Your task to perform on an android device: See recent photos Image 0: 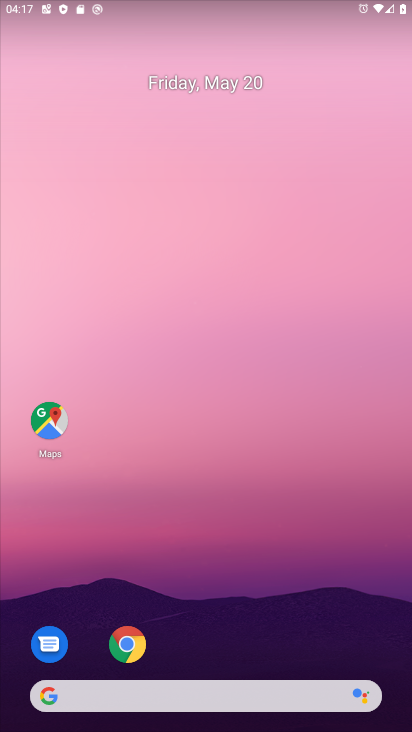
Step 0: drag from (308, 592) to (187, 25)
Your task to perform on an android device: See recent photos Image 1: 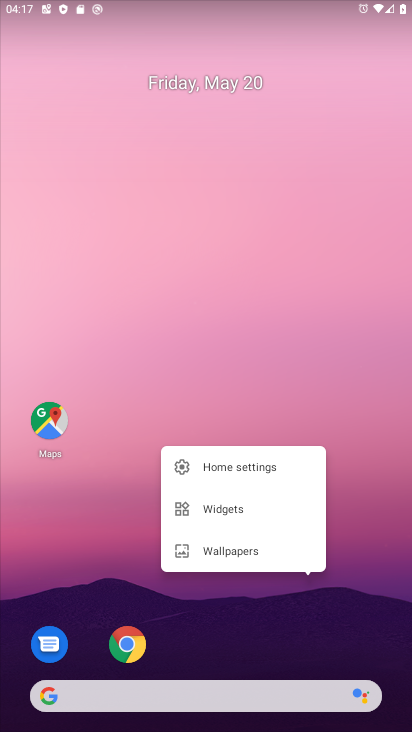
Step 1: click (259, 301)
Your task to perform on an android device: See recent photos Image 2: 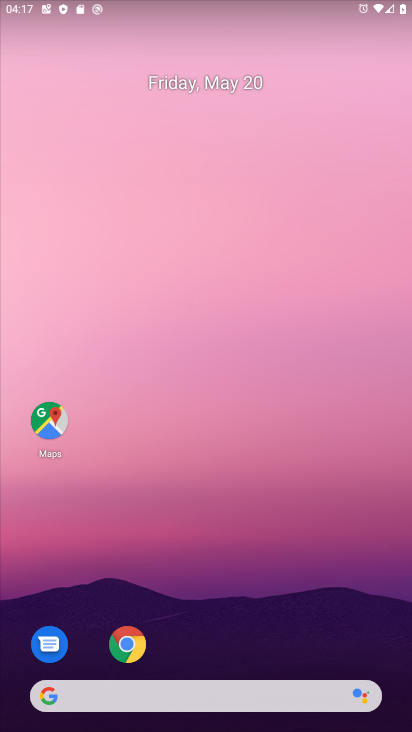
Step 2: drag from (293, 591) to (223, 158)
Your task to perform on an android device: See recent photos Image 3: 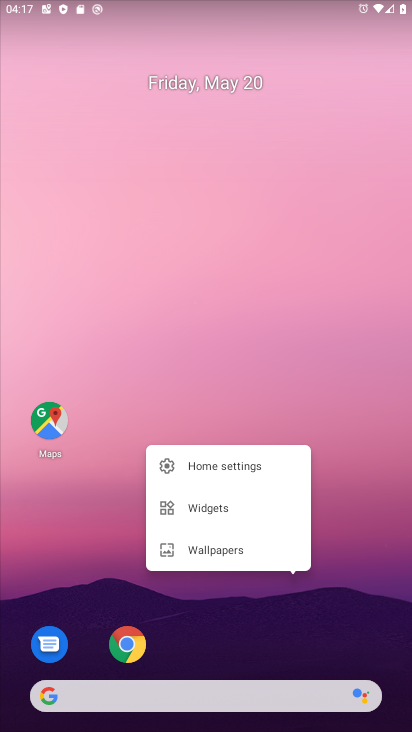
Step 3: click (223, 158)
Your task to perform on an android device: See recent photos Image 4: 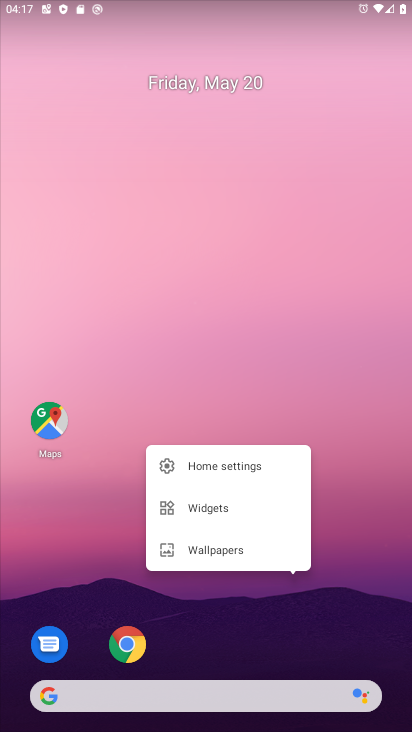
Step 4: click (223, 158)
Your task to perform on an android device: See recent photos Image 5: 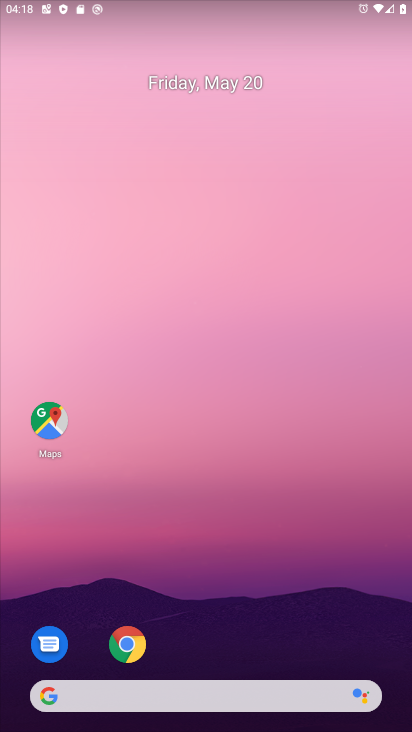
Step 5: drag from (220, 565) to (193, 183)
Your task to perform on an android device: See recent photos Image 6: 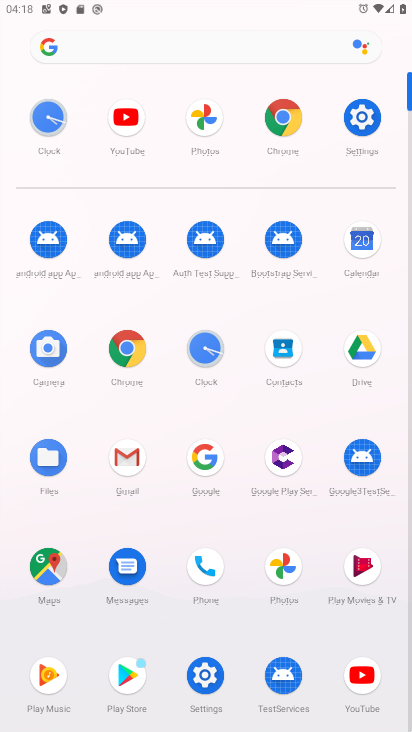
Step 6: click (187, 123)
Your task to perform on an android device: See recent photos Image 7: 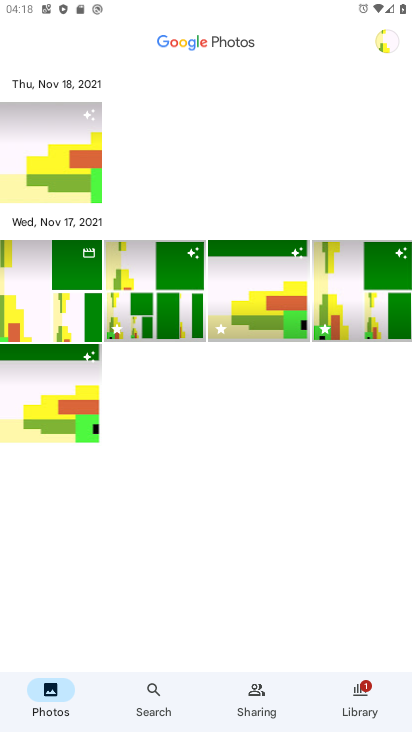
Step 7: task complete